Your task to perform on an android device: toggle javascript in the chrome app Image 0: 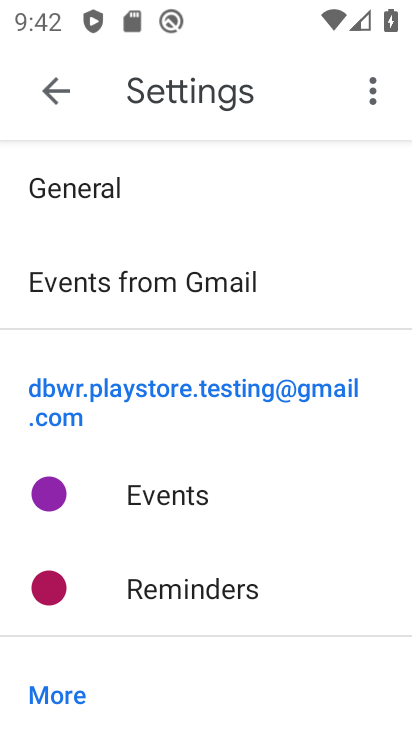
Step 0: press home button
Your task to perform on an android device: toggle javascript in the chrome app Image 1: 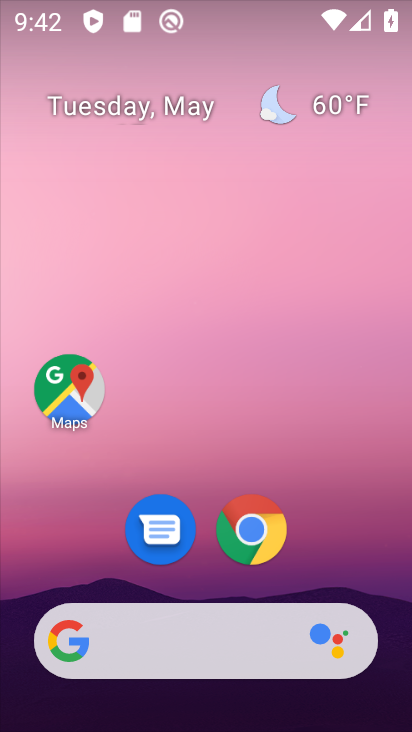
Step 1: click (256, 526)
Your task to perform on an android device: toggle javascript in the chrome app Image 2: 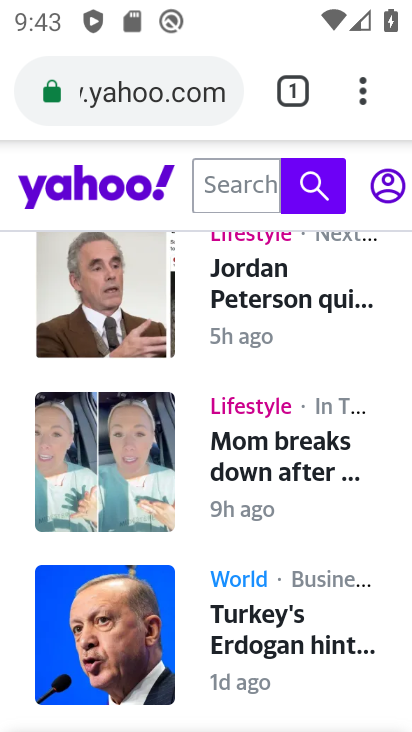
Step 2: click (372, 88)
Your task to perform on an android device: toggle javascript in the chrome app Image 3: 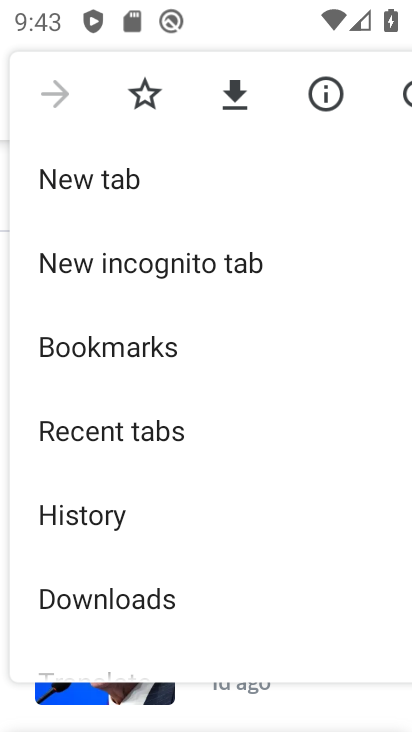
Step 3: drag from (199, 629) to (127, 306)
Your task to perform on an android device: toggle javascript in the chrome app Image 4: 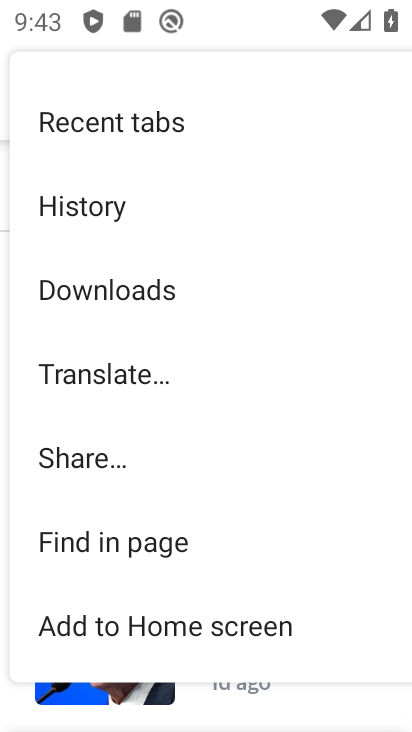
Step 4: drag from (111, 608) to (116, 234)
Your task to perform on an android device: toggle javascript in the chrome app Image 5: 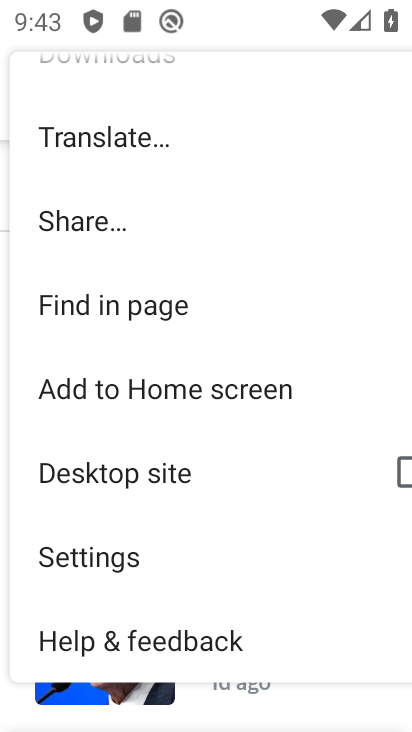
Step 5: click (120, 564)
Your task to perform on an android device: toggle javascript in the chrome app Image 6: 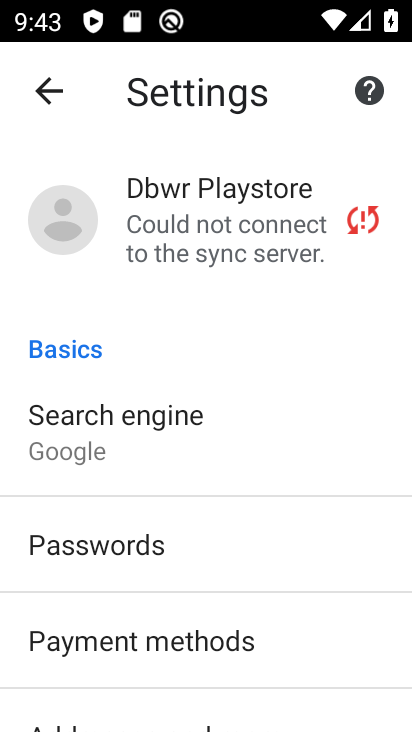
Step 6: drag from (122, 675) to (88, 305)
Your task to perform on an android device: toggle javascript in the chrome app Image 7: 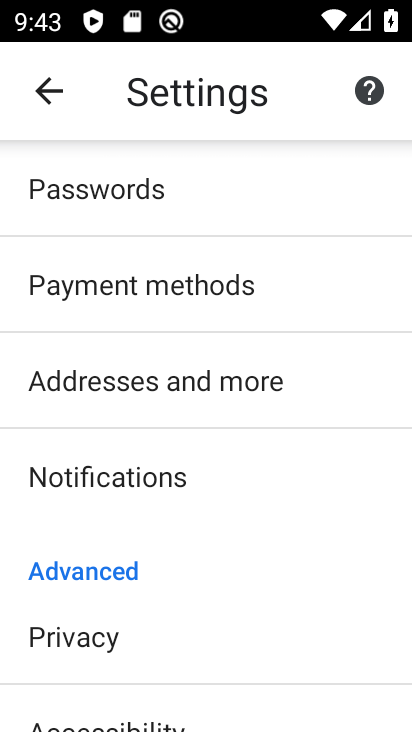
Step 7: drag from (108, 674) to (108, 347)
Your task to perform on an android device: toggle javascript in the chrome app Image 8: 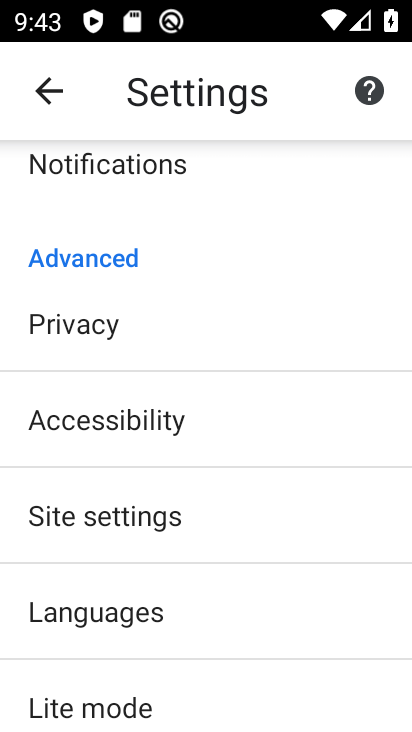
Step 8: click (84, 518)
Your task to perform on an android device: toggle javascript in the chrome app Image 9: 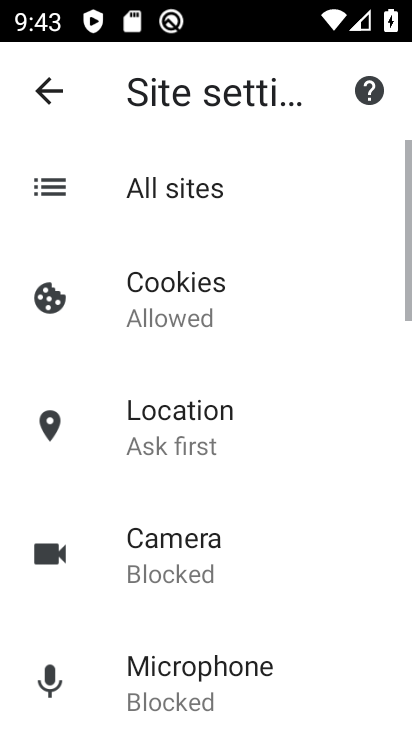
Step 9: drag from (188, 698) to (201, 330)
Your task to perform on an android device: toggle javascript in the chrome app Image 10: 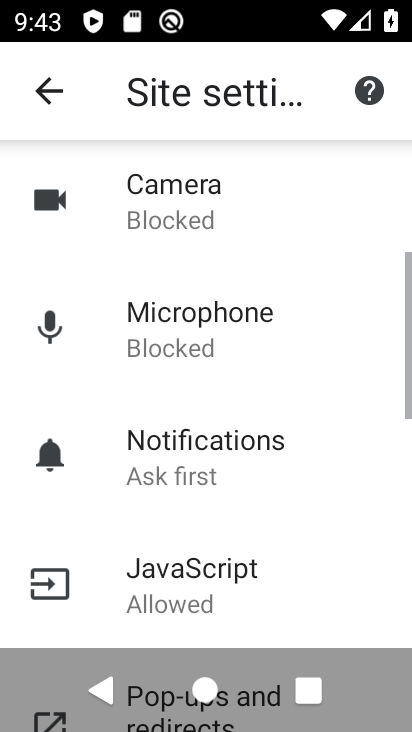
Step 10: click (185, 589)
Your task to perform on an android device: toggle javascript in the chrome app Image 11: 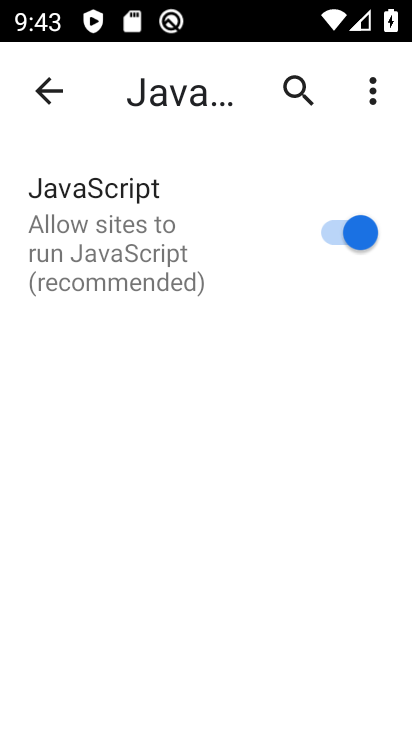
Step 11: click (326, 227)
Your task to perform on an android device: toggle javascript in the chrome app Image 12: 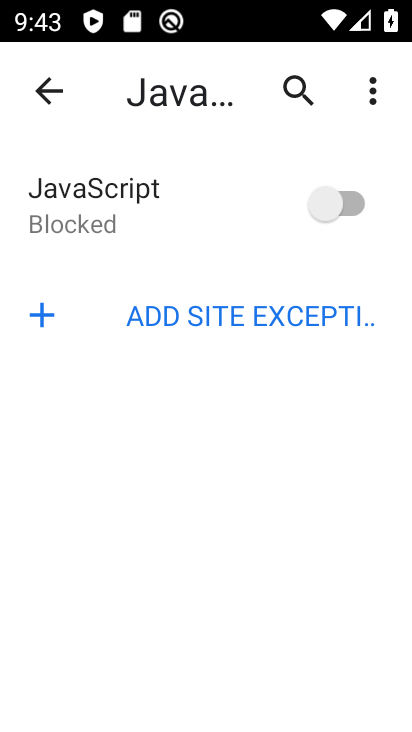
Step 12: task complete